Your task to perform on an android device: toggle notification dots Image 0: 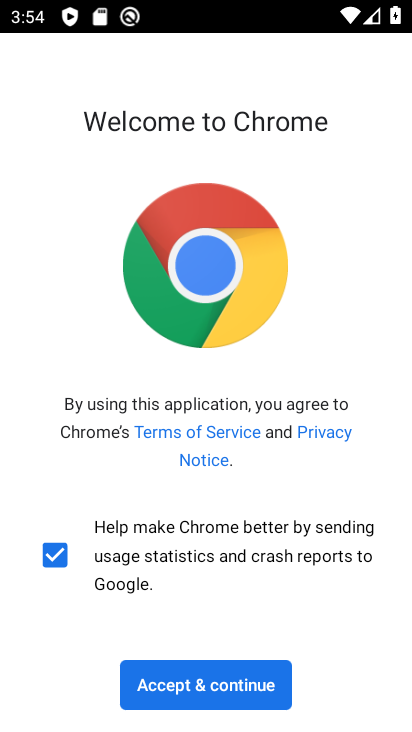
Step 0: press home button
Your task to perform on an android device: toggle notification dots Image 1: 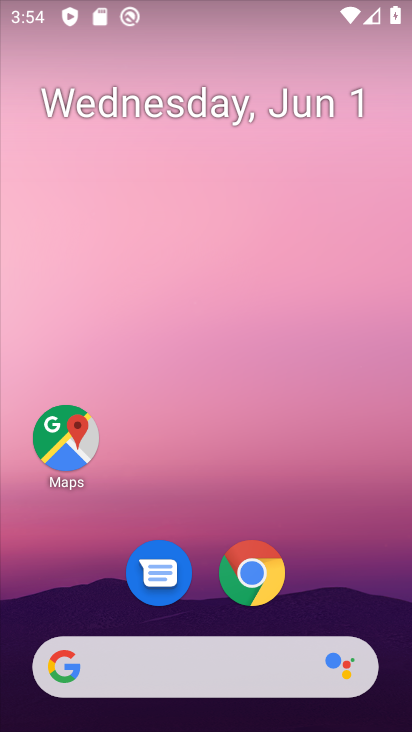
Step 1: press home button
Your task to perform on an android device: toggle notification dots Image 2: 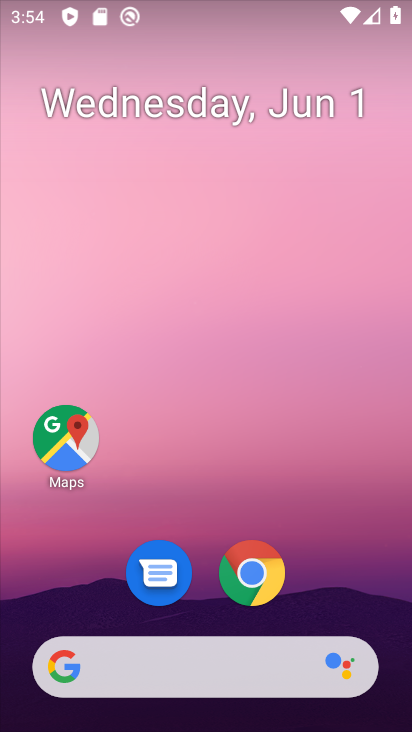
Step 2: drag from (213, 559) to (229, 12)
Your task to perform on an android device: toggle notification dots Image 3: 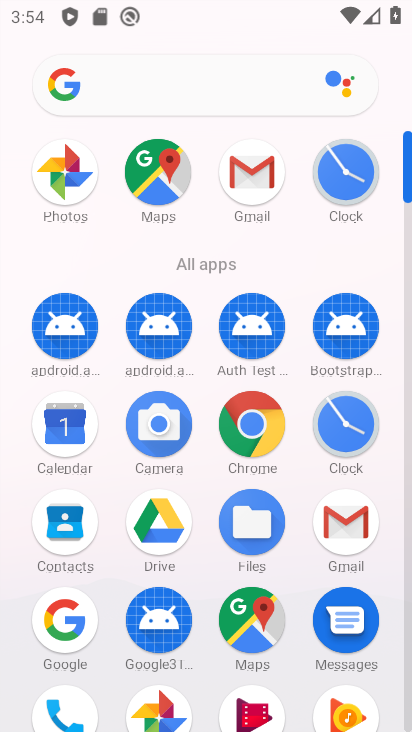
Step 3: drag from (216, 558) to (186, 12)
Your task to perform on an android device: toggle notification dots Image 4: 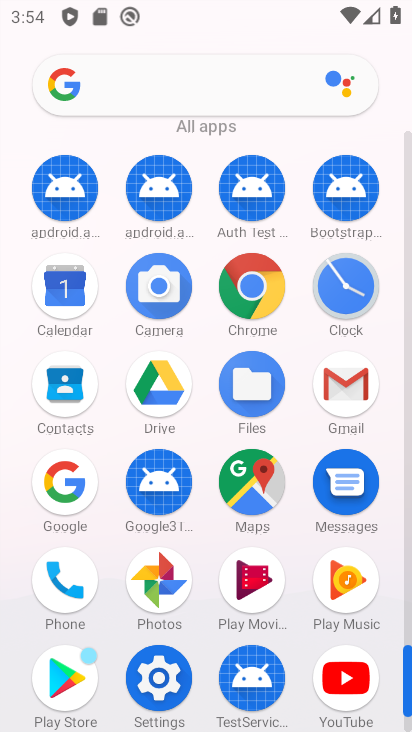
Step 4: drag from (116, 671) to (104, 192)
Your task to perform on an android device: toggle notification dots Image 5: 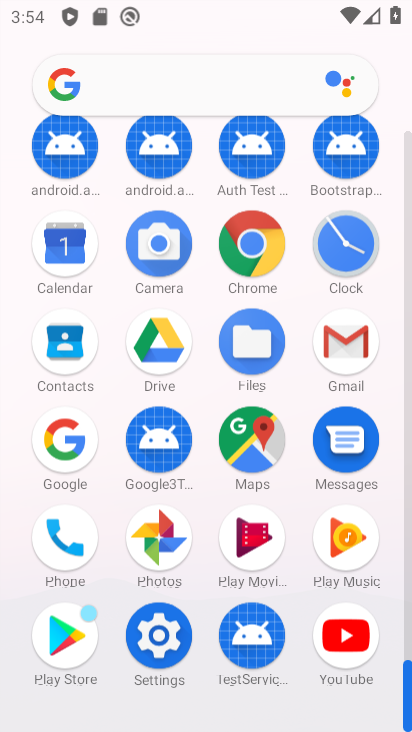
Step 5: click (156, 682)
Your task to perform on an android device: toggle notification dots Image 6: 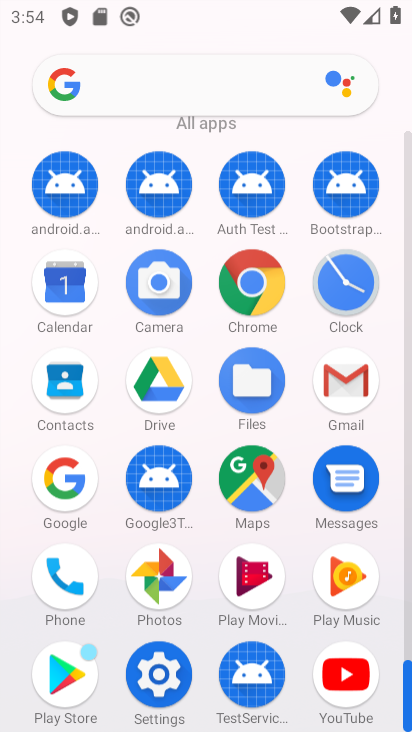
Step 6: click (156, 682)
Your task to perform on an android device: toggle notification dots Image 7: 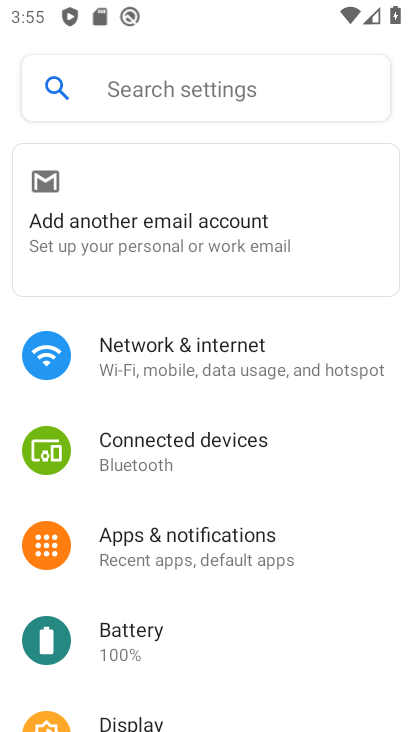
Step 7: click (161, 558)
Your task to perform on an android device: toggle notification dots Image 8: 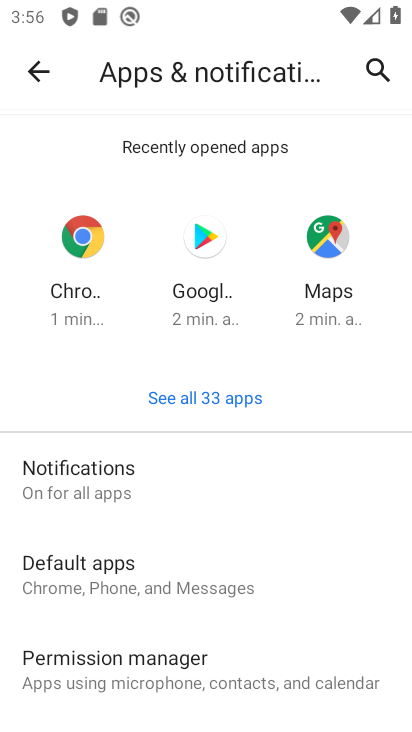
Step 8: click (150, 485)
Your task to perform on an android device: toggle notification dots Image 9: 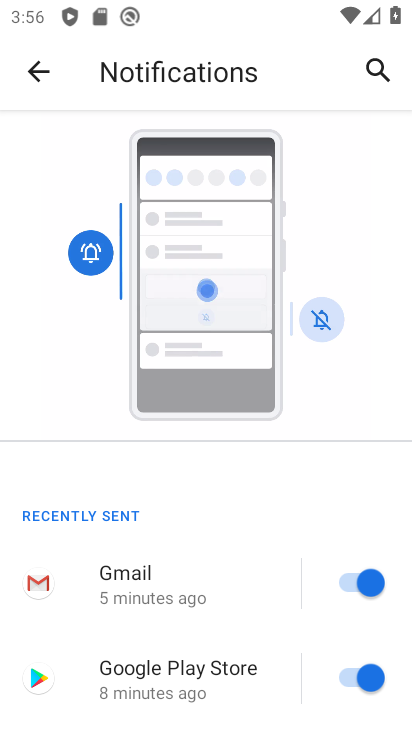
Step 9: drag from (180, 699) to (254, 66)
Your task to perform on an android device: toggle notification dots Image 10: 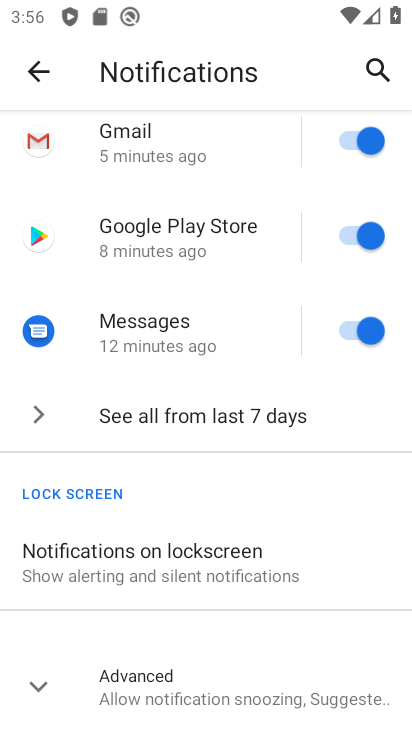
Step 10: click (164, 691)
Your task to perform on an android device: toggle notification dots Image 11: 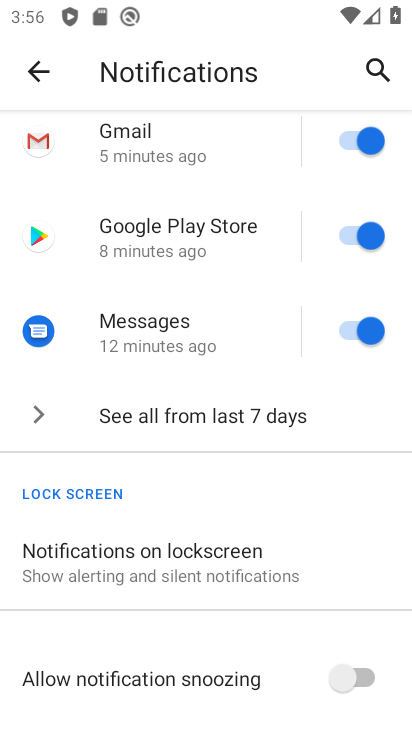
Step 11: drag from (186, 620) to (199, 267)
Your task to perform on an android device: toggle notification dots Image 12: 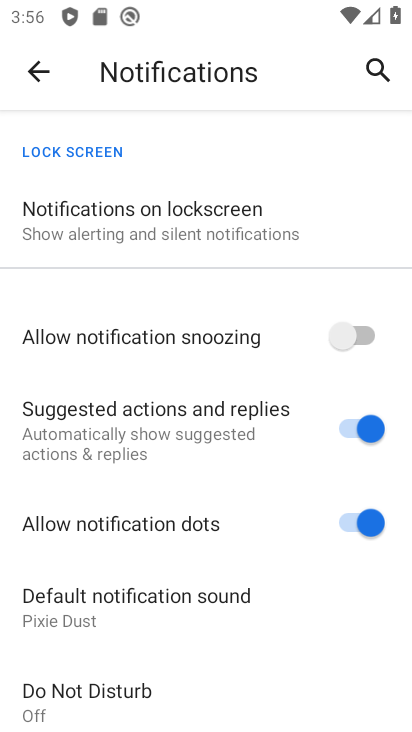
Step 12: click (363, 518)
Your task to perform on an android device: toggle notification dots Image 13: 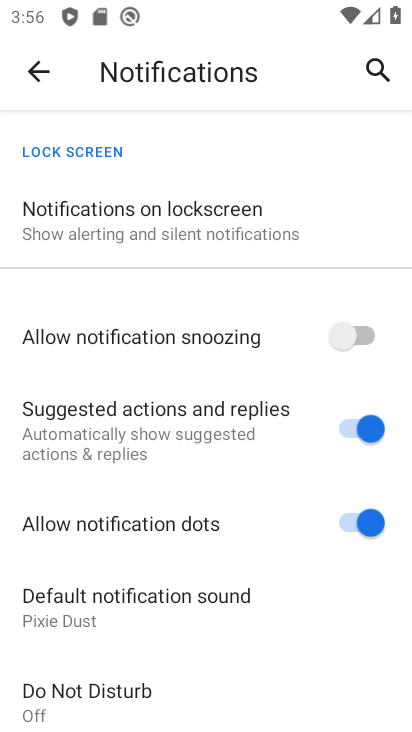
Step 13: click (363, 518)
Your task to perform on an android device: toggle notification dots Image 14: 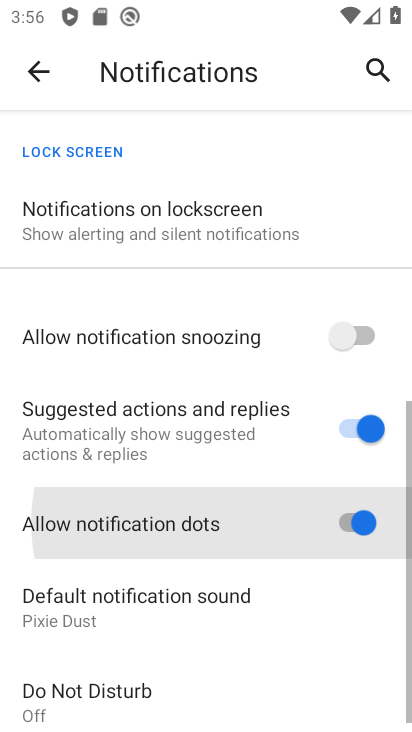
Step 14: click (363, 518)
Your task to perform on an android device: toggle notification dots Image 15: 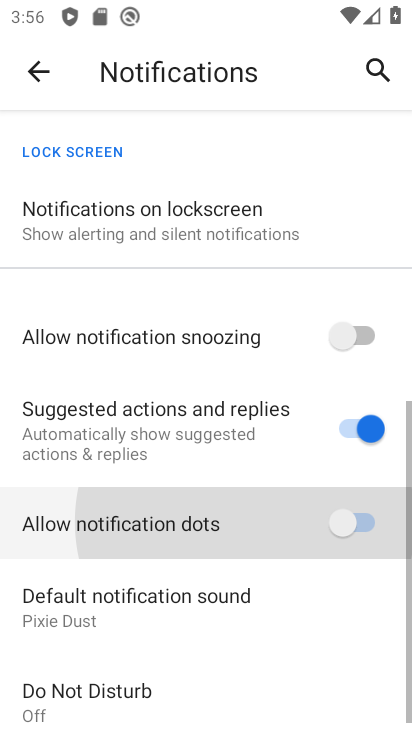
Step 15: click (363, 518)
Your task to perform on an android device: toggle notification dots Image 16: 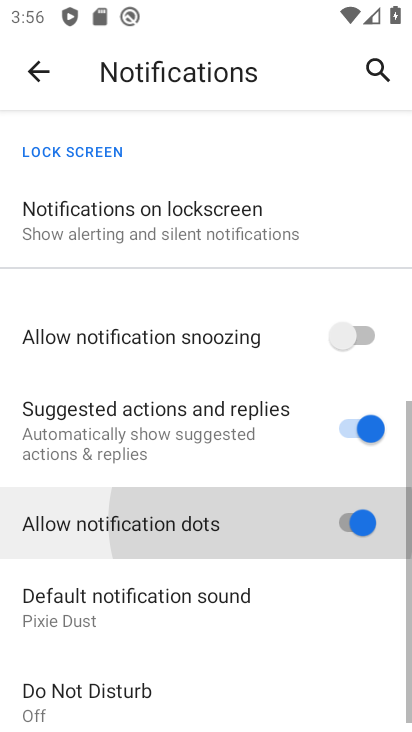
Step 16: click (363, 518)
Your task to perform on an android device: toggle notification dots Image 17: 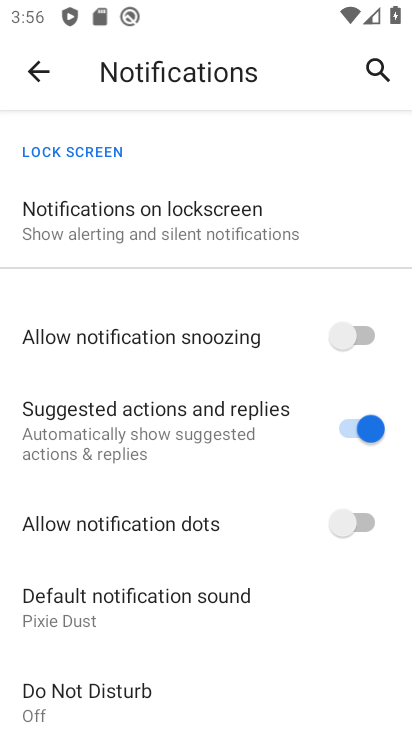
Step 17: task complete